Your task to perform on an android device: Set the phone to "Do not disturb". Image 0: 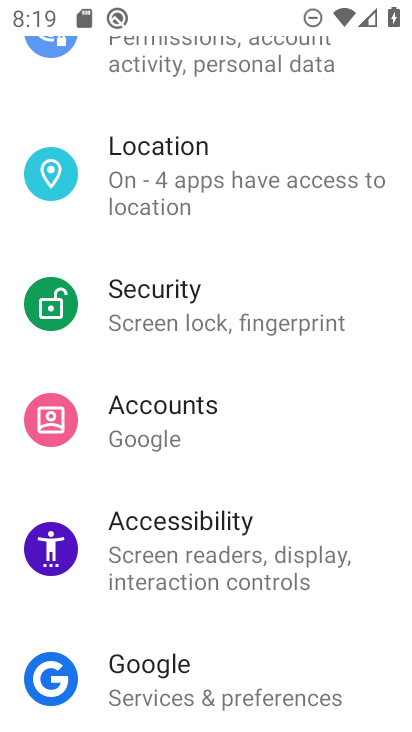
Step 0: press home button
Your task to perform on an android device: Set the phone to "Do not disturb". Image 1: 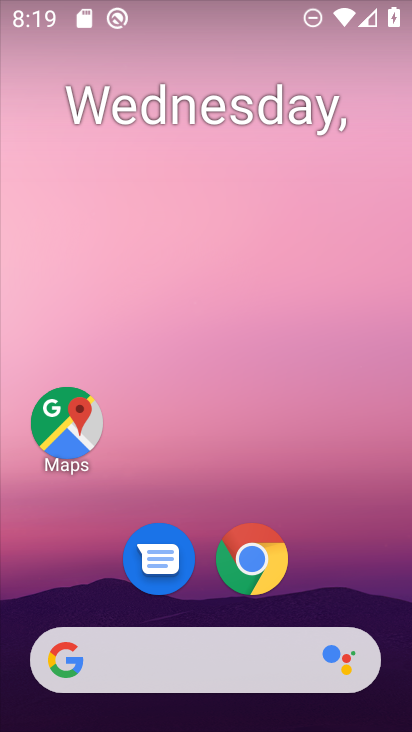
Step 1: task complete